Your task to perform on an android device: open chrome privacy settings Image 0: 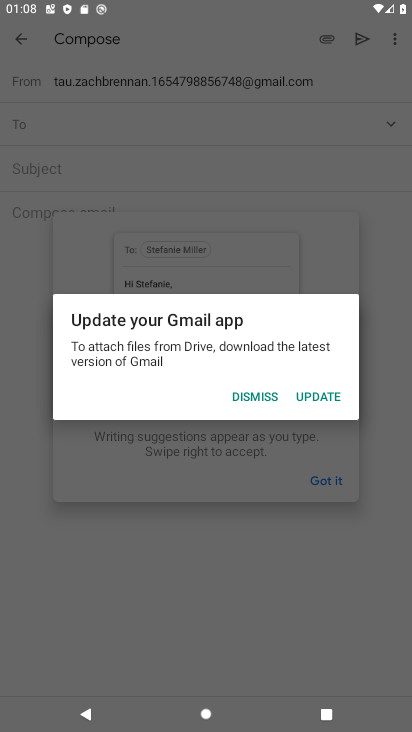
Step 0: press home button
Your task to perform on an android device: open chrome privacy settings Image 1: 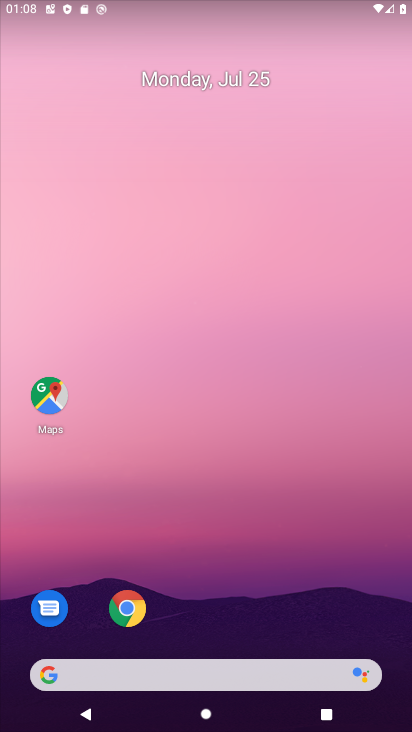
Step 1: drag from (223, 644) to (47, 99)
Your task to perform on an android device: open chrome privacy settings Image 2: 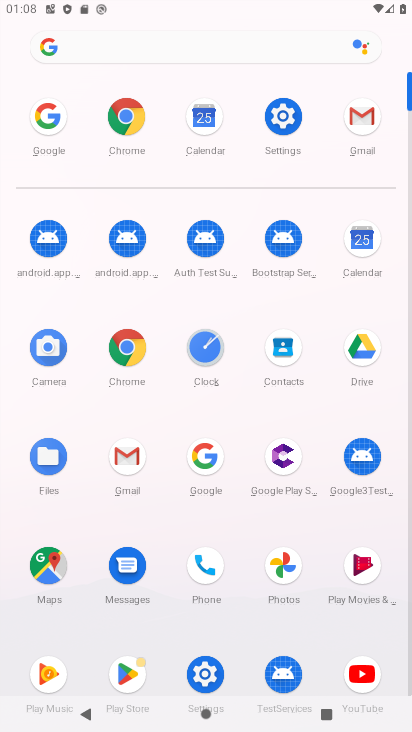
Step 2: click (131, 368)
Your task to perform on an android device: open chrome privacy settings Image 3: 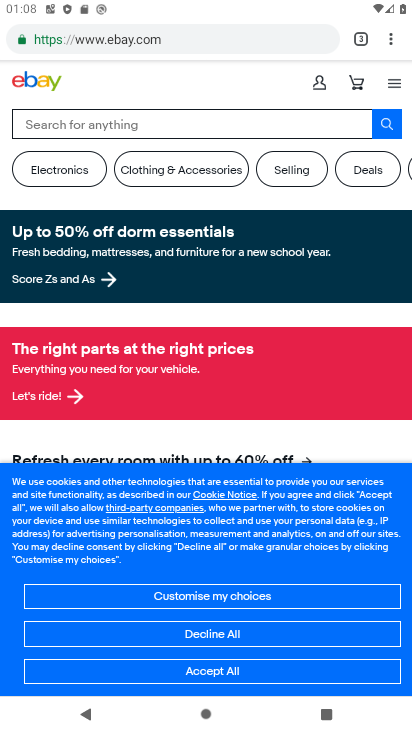
Step 3: drag from (386, 40) to (264, 475)
Your task to perform on an android device: open chrome privacy settings Image 4: 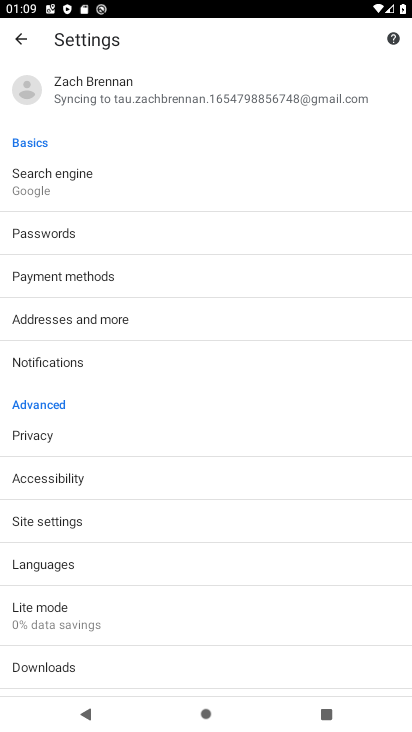
Step 4: click (57, 450)
Your task to perform on an android device: open chrome privacy settings Image 5: 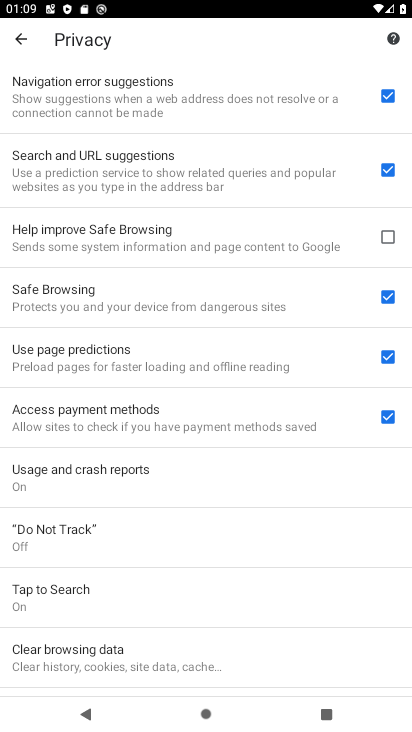
Step 5: task complete